Your task to perform on an android device: open app "DoorDash - Dasher" (install if not already installed) and enter user name: "resistor@inbox.com" and password: "cholera" Image 0: 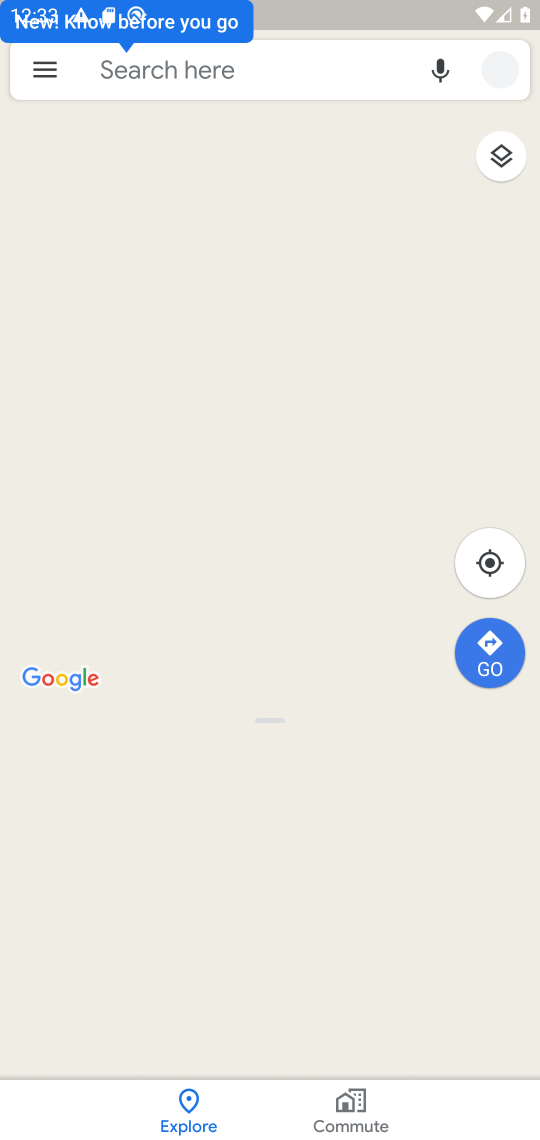
Step 0: press home button
Your task to perform on an android device: open app "DoorDash - Dasher" (install if not already installed) and enter user name: "resistor@inbox.com" and password: "cholera" Image 1: 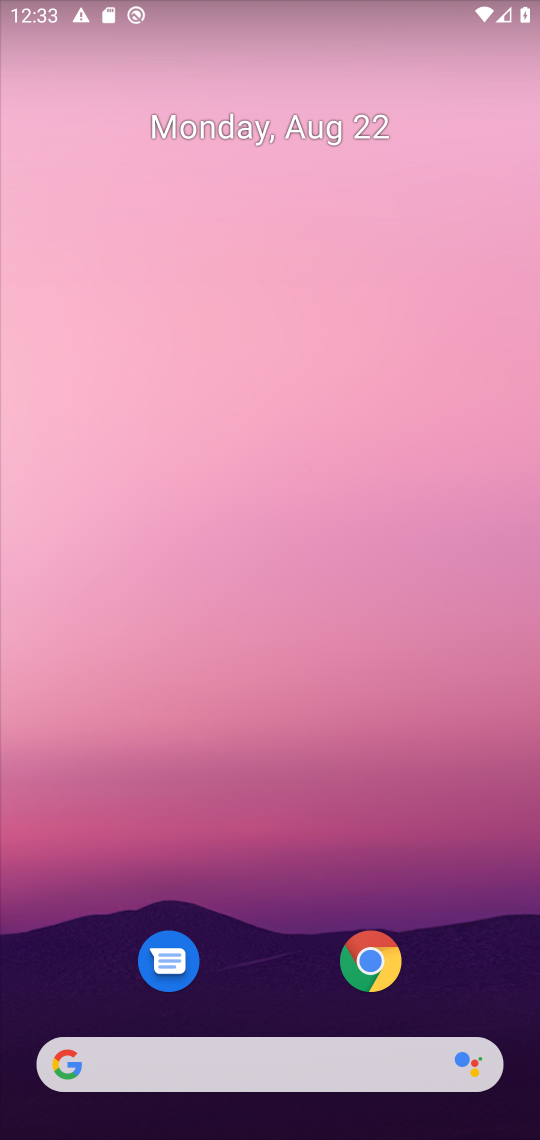
Step 1: drag from (475, 985) to (446, 88)
Your task to perform on an android device: open app "DoorDash - Dasher" (install if not already installed) and enter user name: "resistor@inbox.com" and password: "cholera" Image 2: 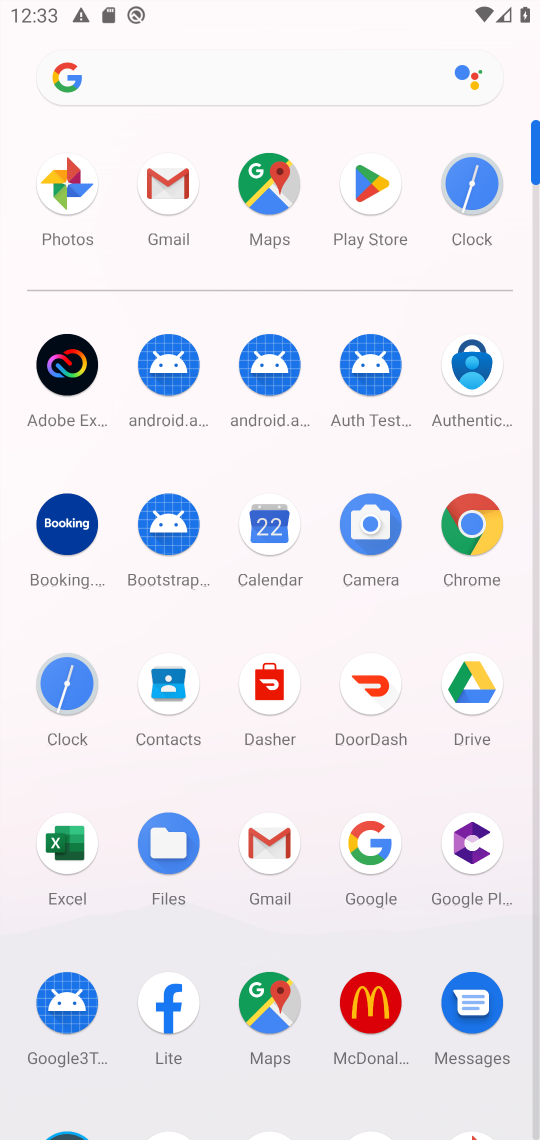
Step 2: click (377, 187)
Your task to perform on an android device: open app "DoorDash - Dasher" (install if not already installed) and enter user name: "resistor@inbox.com" and password: "cholera" Image 3: 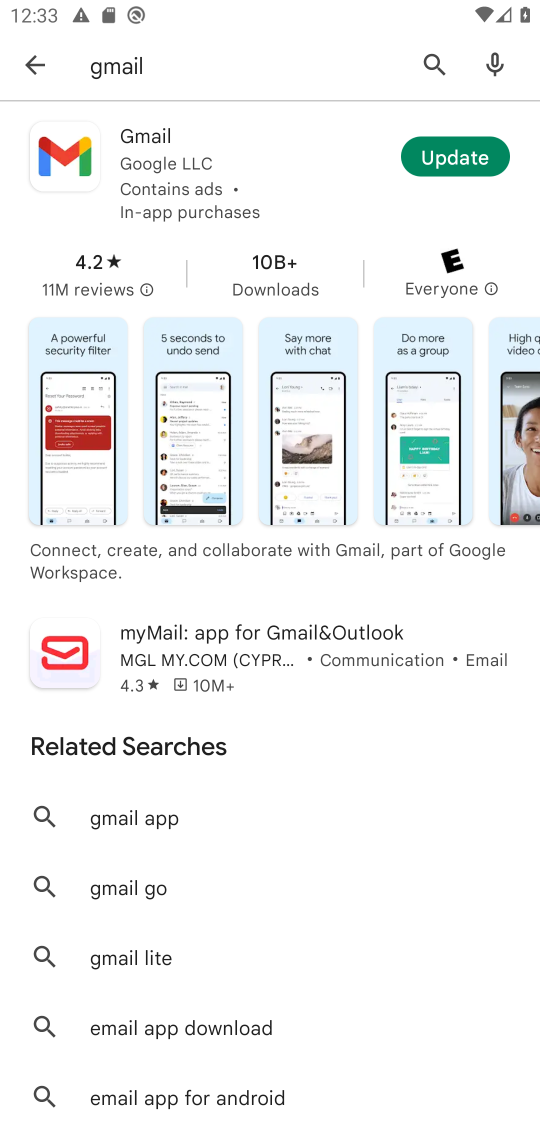
Step 3: press back button
Your task to perform on an android device: open app "DoorDash - Dasher" (install if not already installed) and enter user name: "resistor@inbox.com" and password: "cholera" Image 4: 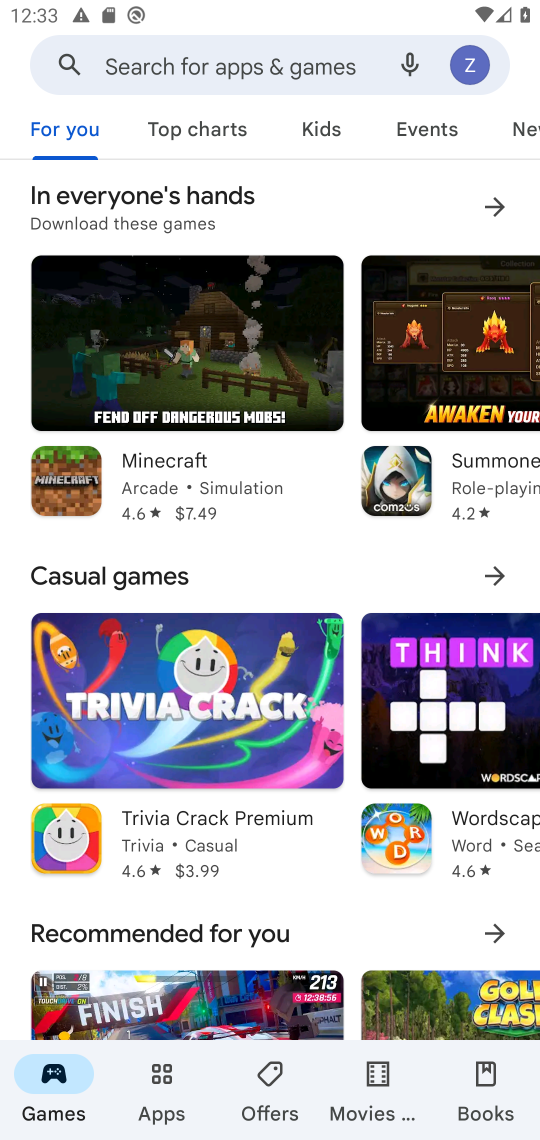
Step 4: click (272, 59)
Your task to perform on an android device: open app "DoorDash - Dasher" (install if not already installed) and enter user name: "resistor@inbox.com" and password: "cholera" Image 5: 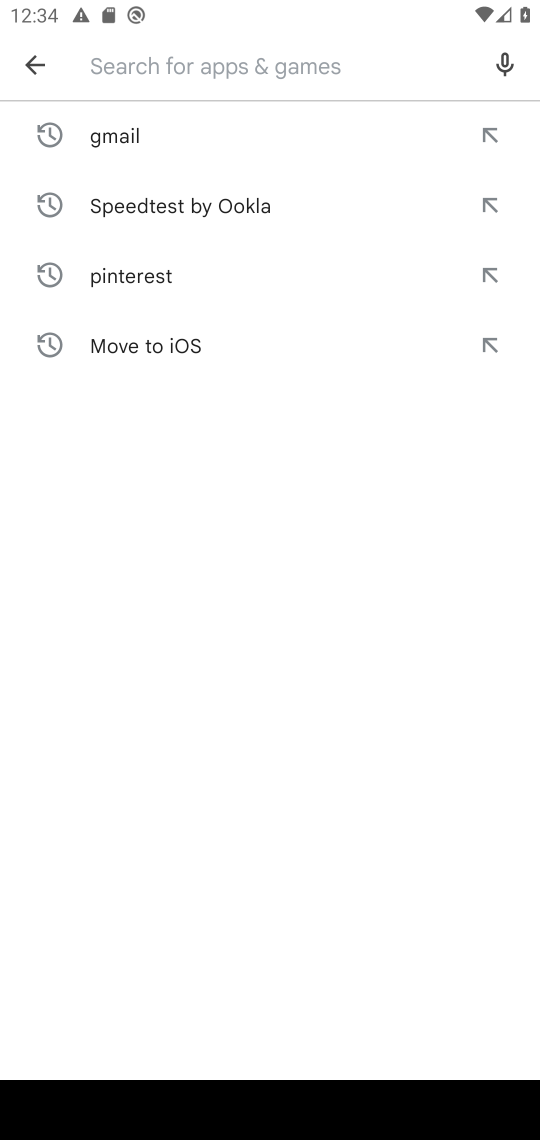
Step 5: type "DoorDash - Dasher"
Your task to perform on an android device: open app "DoorDash - Dasher" (install if not already installed) and enter user name: "resistor@inbox.com" and password: "cholera" Image 6: 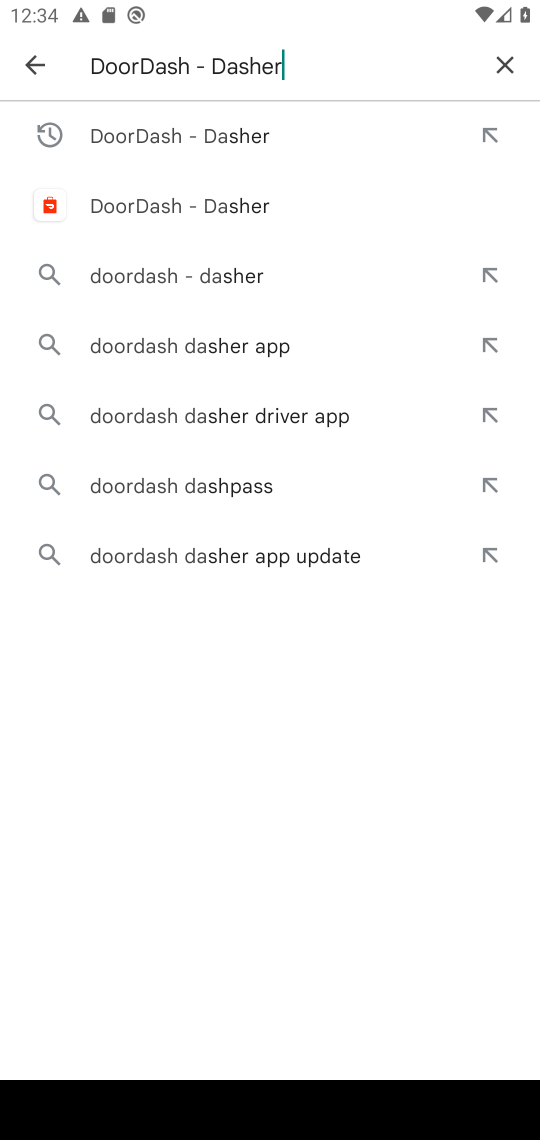
Step 6: press enter
Your task to perform on an android device: open app "DoorDash - Dasher" (install if not already installed) and enter user name: "resistor@inbox.com" and password: "cholera" Image 7: 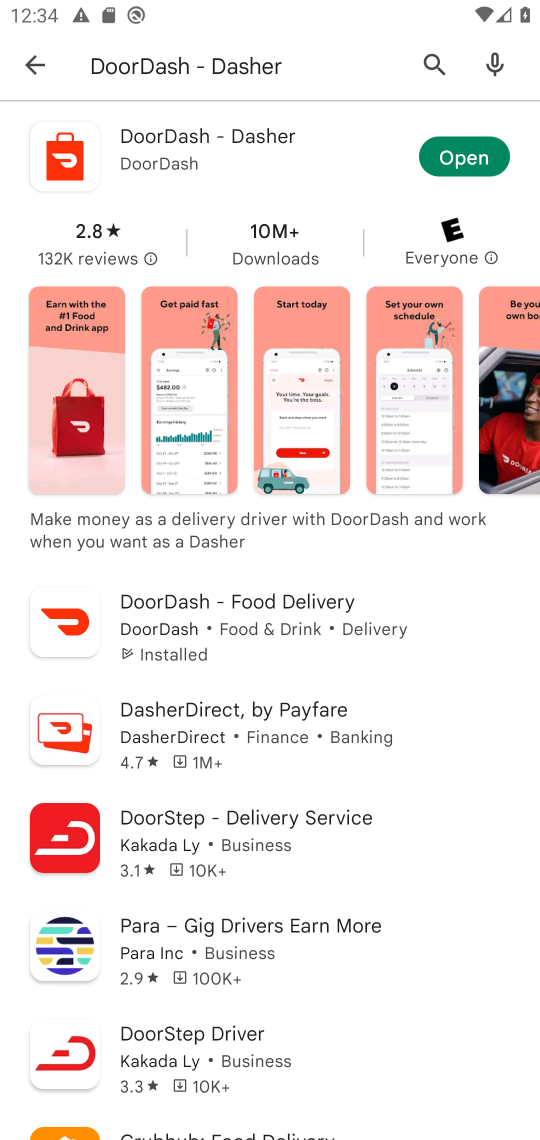
Step 7: click (478, 159)
Your task to perform on an android device: open app "DoorDash - Dasher" (install if not already installed) and enter user name: "resistor@inbox.com" and password: "cholera" Image 8: 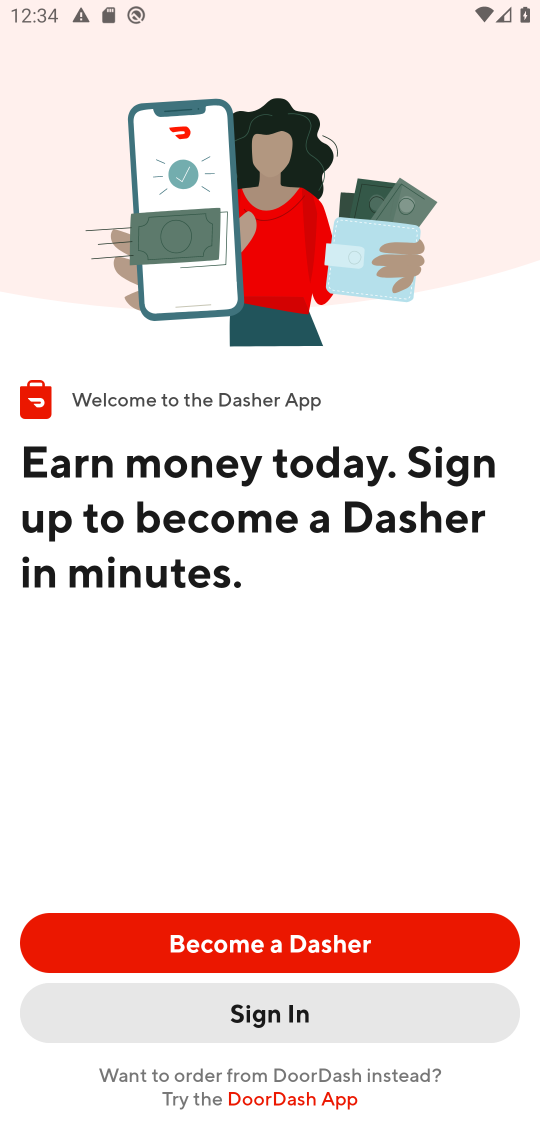
Step 8: click (353, 1009)
Your task to perform on an android device: open app "DoorDash - Dasher" (install if not already installed) and enter user name: "resistor@inbox.com" and password: "cholera" Image 9: 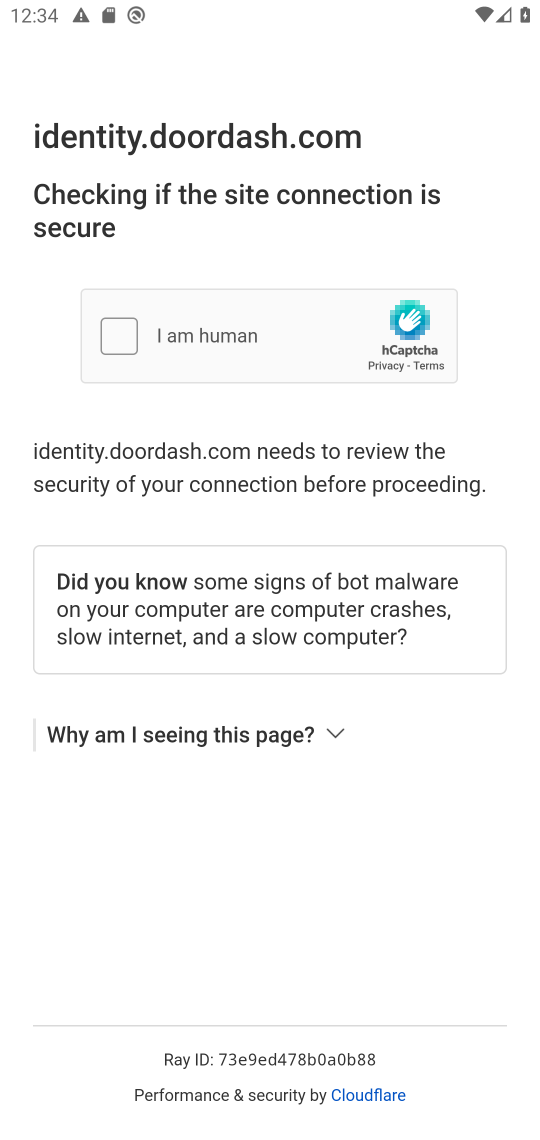
Step 9: click (122, 334)
Your task to perform on an android device: open app "DoorDash - Dasher" (install if not already installed) and enter user name: "resistor@inbox.com" and password: "cholera" Image 10: 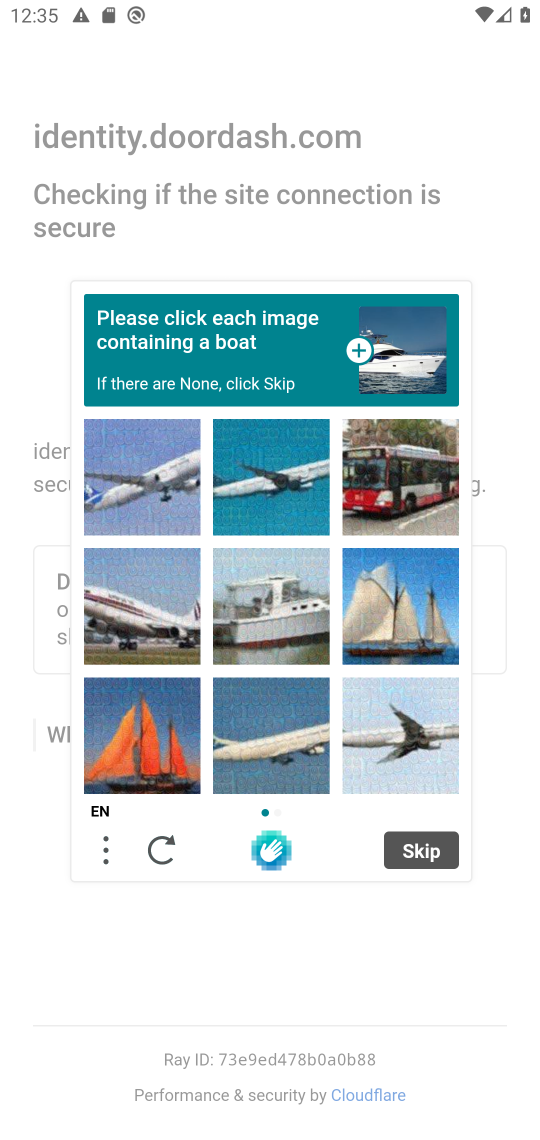
Step 10: click (431, 840)
Your task to perform on an android device: open app "DoorDash - Dasher" (install if not already installed) and enter user name: "resistor@inbox.com" and password: "cholera" Image 11: 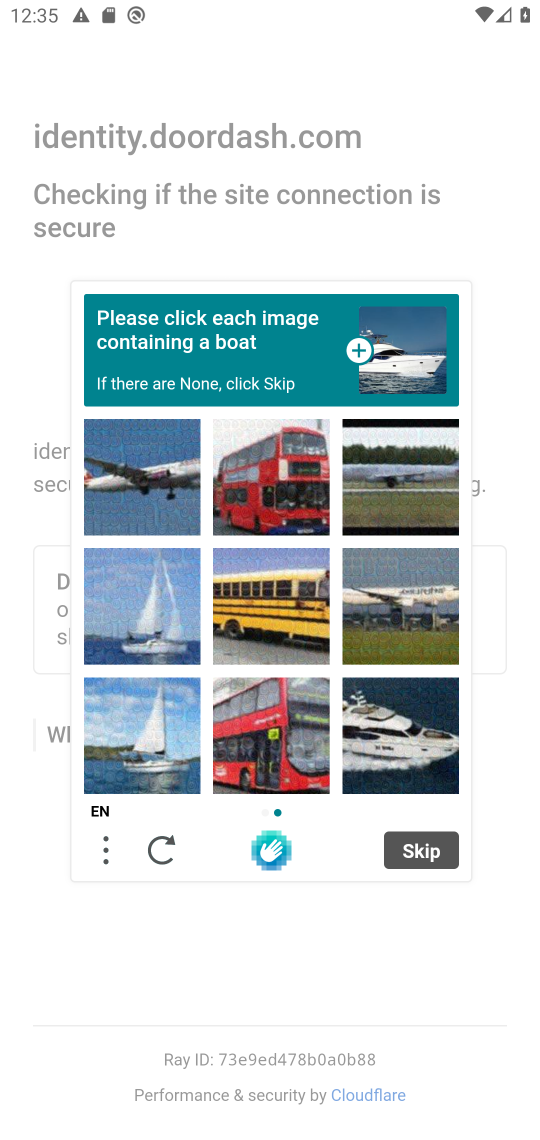
Step 11: click (413, 850)
Your task to perform on an android device: open app "DoorDash - Dasher" (install if not already installed) and enter user name: "resistor@inbox.com" and password: "cholera" Image 12: 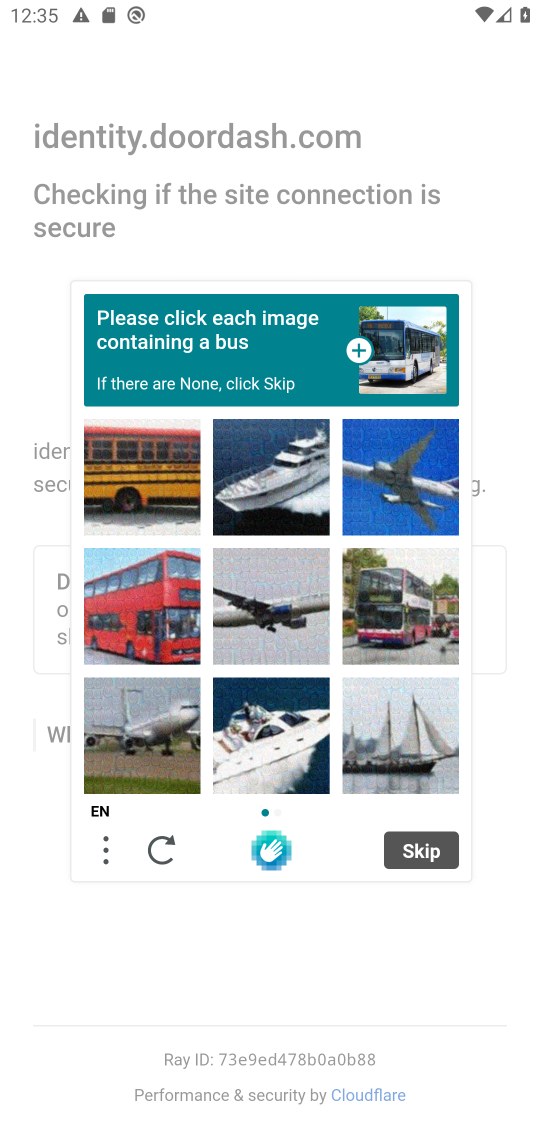
Step 12: click (434, 848)
Your task to perform on an android device: open app "DoorDash - Dasher" (install if not already installed) and enter user name: "resistor@inbox.com" and password: "cholera" Image 13: 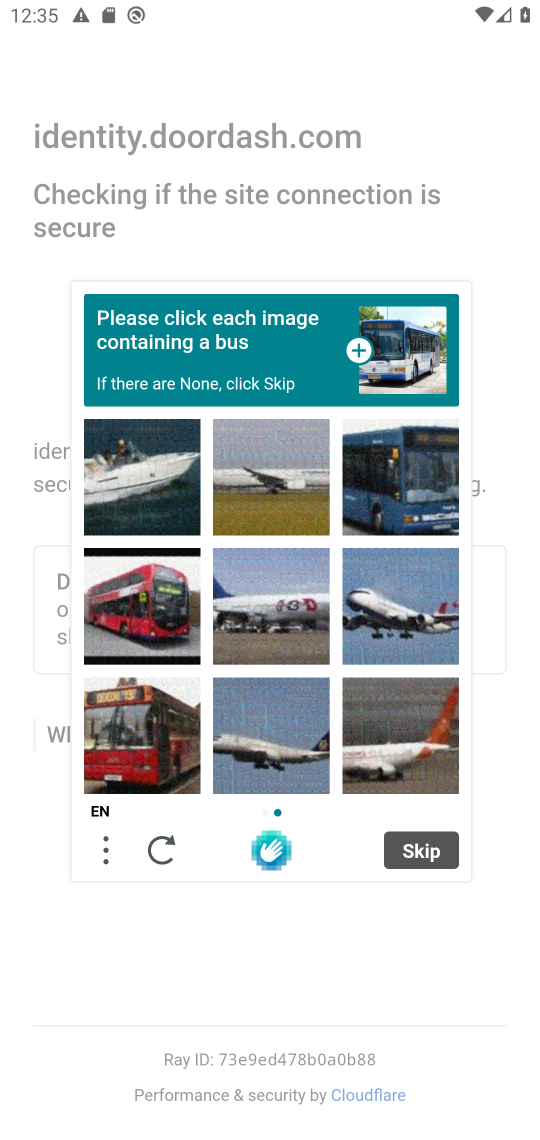
Step 13: click (422, 855)
Your task to perform on an android device: open app "DoorDash - Dasher" (install if not already installed) and enter user name: "resistor@inbox.com" and password: "cholera" Image 14: 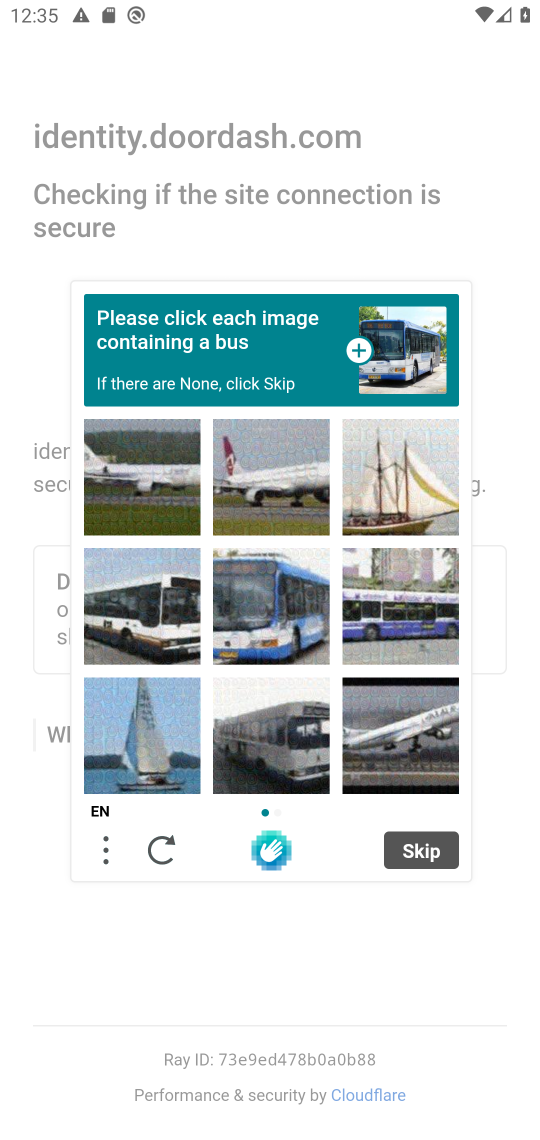
Step 14: click (151, 630)
Your task to perform on an android device: open app "DoorDash - Dasher" (install if not already installed) and enter user name: "resistor@inbox.com" and password: "cholera" Image 15: 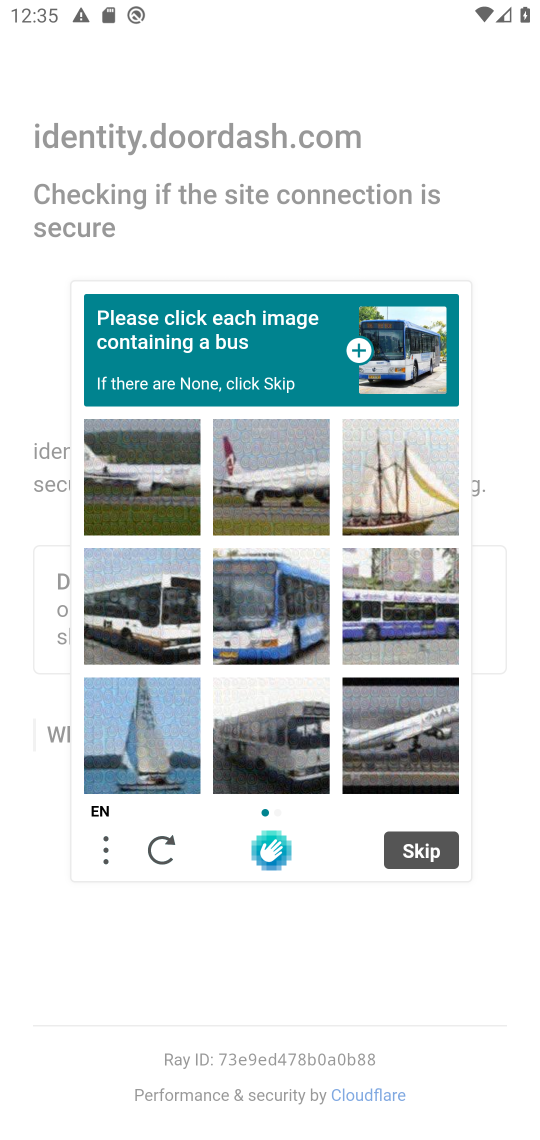
Step 15: click (288, 622)
Your task to perform on an android device: open app "DoorDash - Dasher" (install if not already installed) and enter user name: "resistor@inbox.com" and password: "cholera" Image 16: 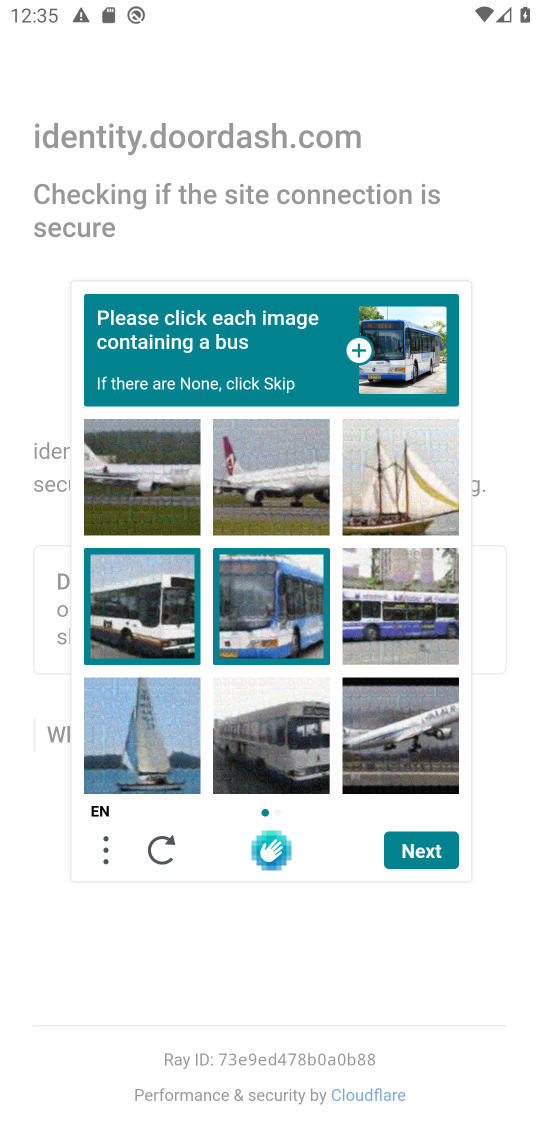
Step 16: click (407, 612)
Your task to perform on an android device: open app "DoorDash - Dasher" (install if not already installed) and enter user name: "resistor@inbox.com" and password: "cholera" Image 17: 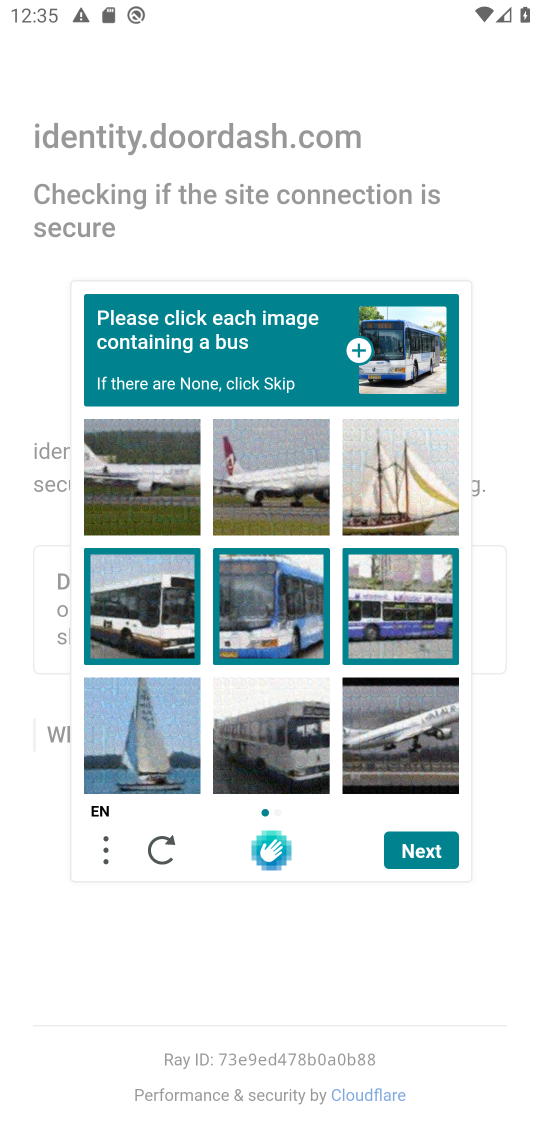
Step 17: click (294, 754)
Your task to perform on an android device: open app "DoorDash - Dasher" (install if not already installed) and enter user name: "resistor@inbox.com" and password: "cholera" Image 18: 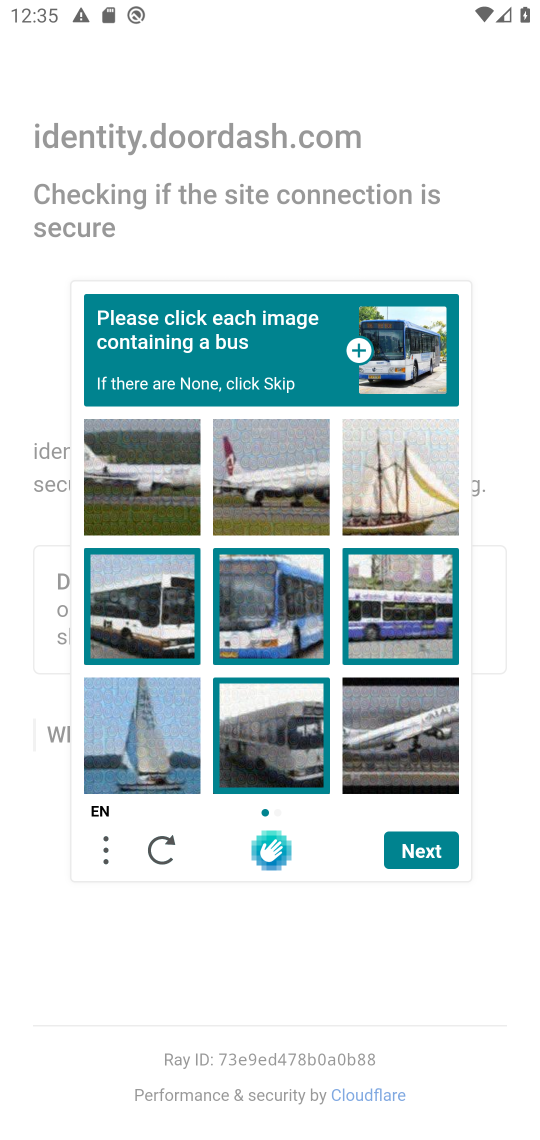
Step 18: click (425, 850)
Your task to perform on an android device: open app "DoorDash - Dasher" (install if not already installed) and enter user name: "resistor@inbox.com" and password: "cholera" Image 19: 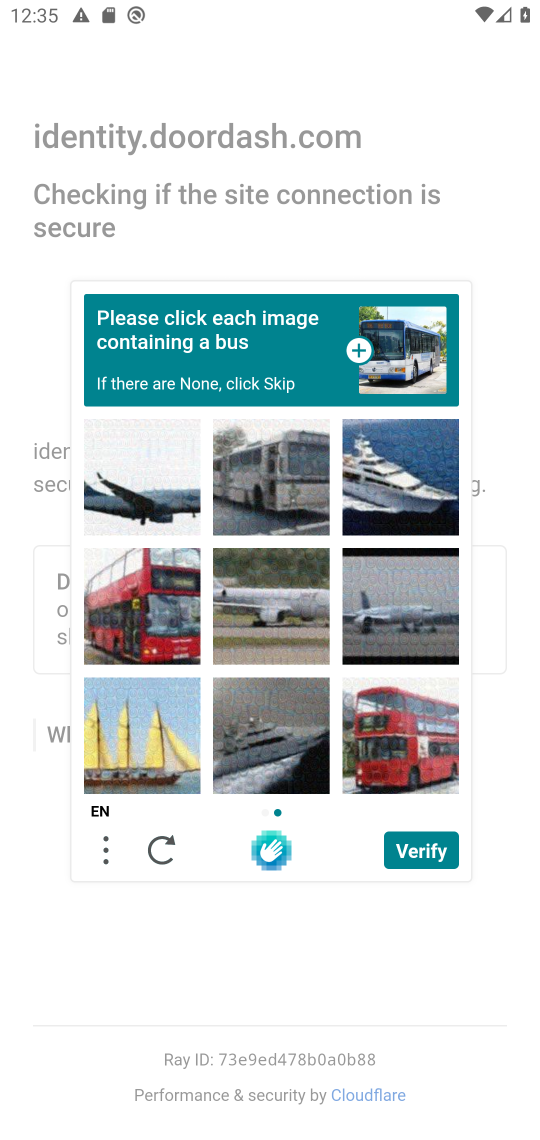
Step 19: task complete